Your task to perform on an android device: turn notification dots off Image 0: 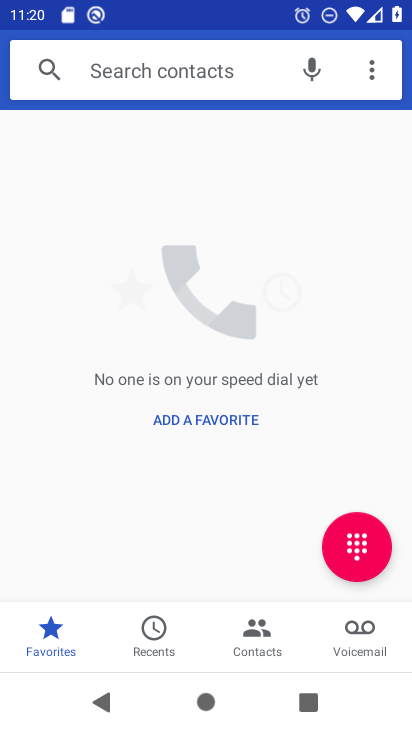
Step 0: press home button
Your task to perform on an android device: turn notification dots off Image 1: 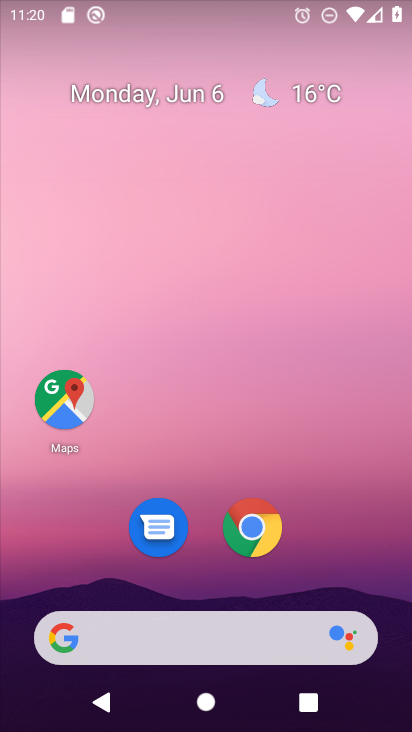
Step 1: drag from (354, 563) to (366, 276)
Your task to perform on an android device: turn notification dots off Image 2: 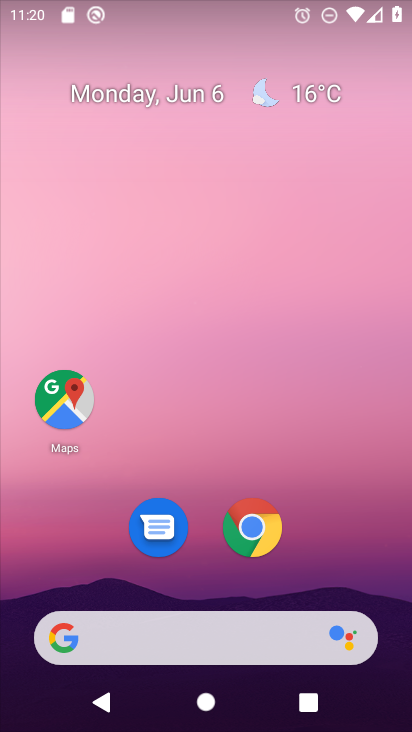
Step 2: drag from (310, 566) to (340, 200)
Your task to perform on an android device: turn notification dots off Image 3: 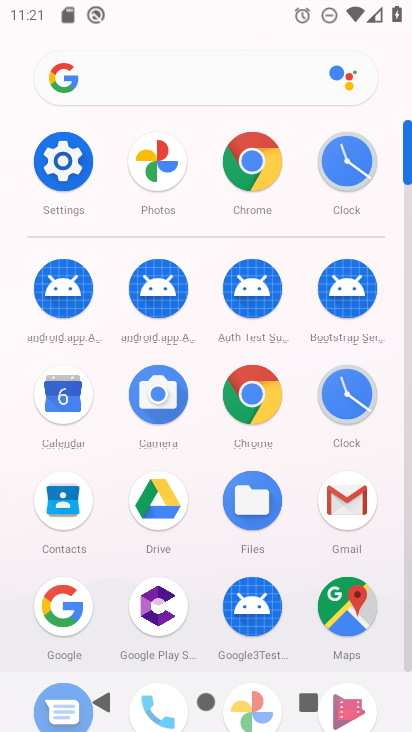
Step 3: click (74, 187)
Your task to perform on an android device: turn notification dots off Image 4: 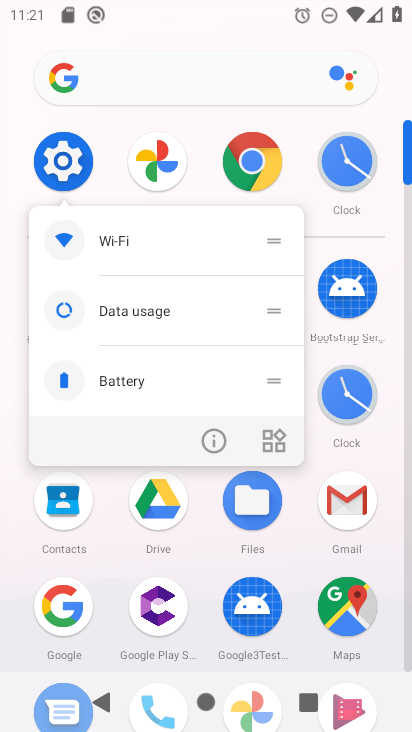
Step 4: click (73, 170)
Your task to perform on an android device: turn notification dots off Image 5: 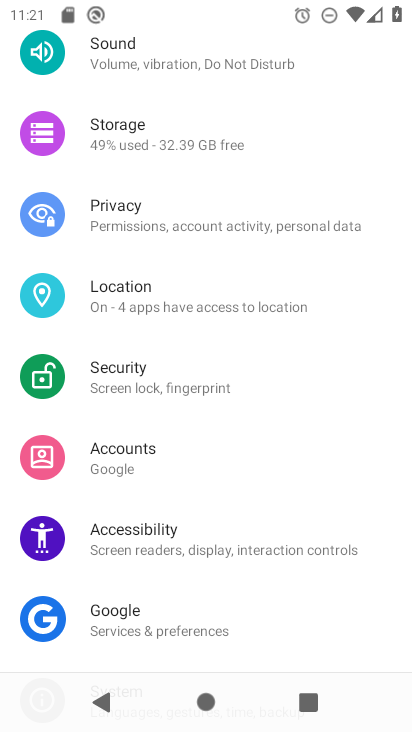
Step 5: drag from (343, 258) to (334, 436)
Your task to perform on an android device: turn notification dots off Image 6: 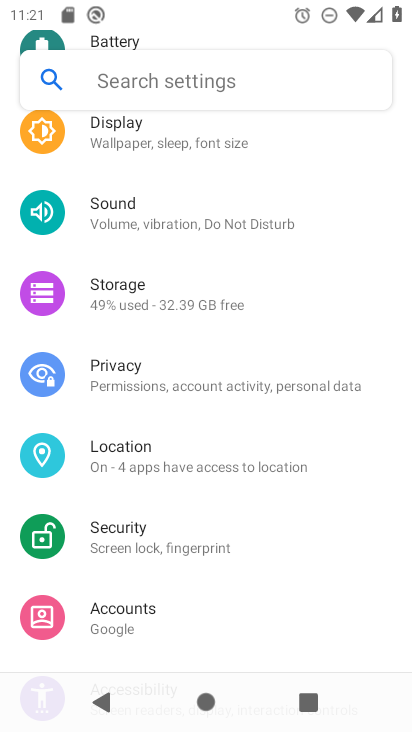
Step 6: drag from (329, 213) to (352, 391)
Your task to perform on an android device: turn notification dots off Image 7: 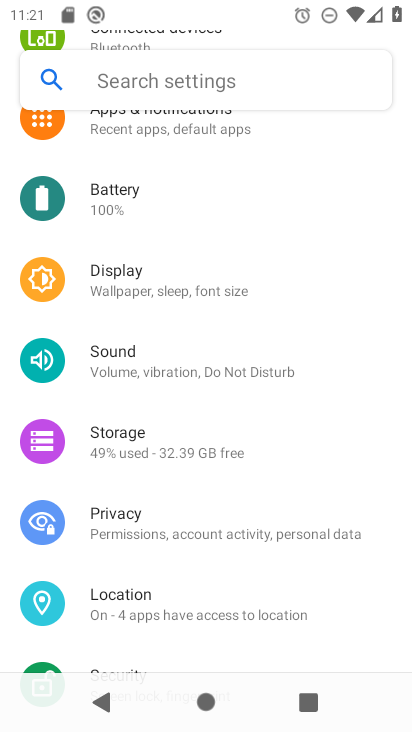
Step 7: drag from (337, 179) to (351, 375)
Your task to perform on an android device: turn notification dots off Image 8: 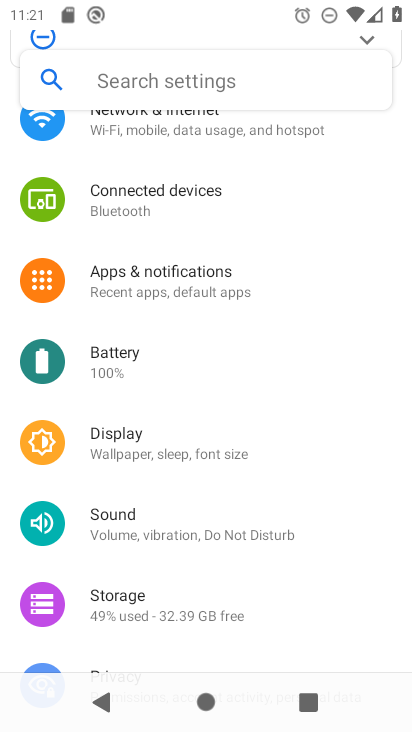
Step 8: click (264, 274)
Your task to perform on an android device: turn notification dots off Image 9: 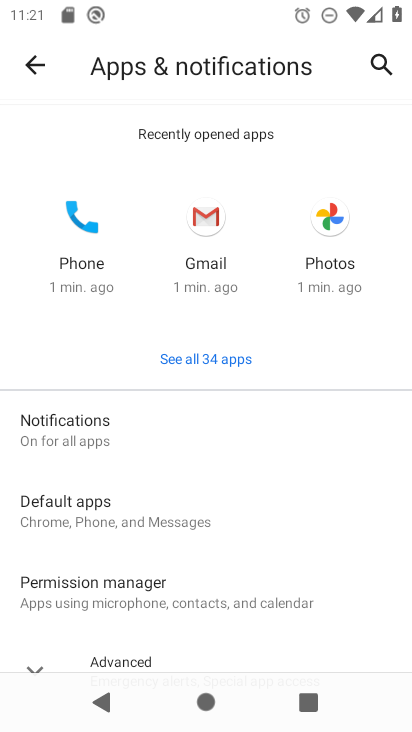
Step 9: click (165, 426)
Your task to perform on an android device: turn notification dots off Image 10: 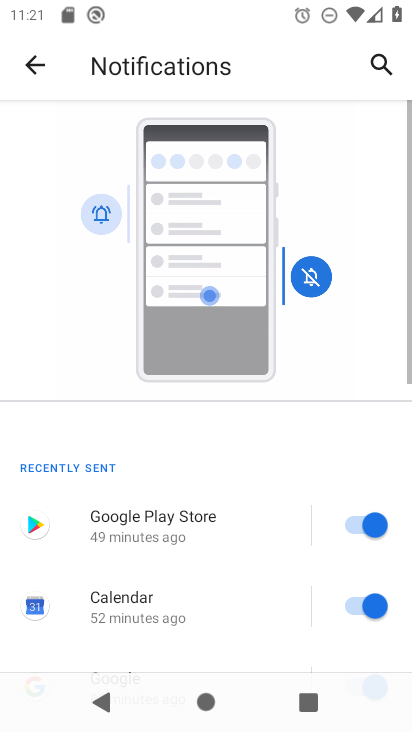
Step 10: drag from (280, 502) to (291, 359)
Your task to perform on an android device: turn notification dots off Image 11: 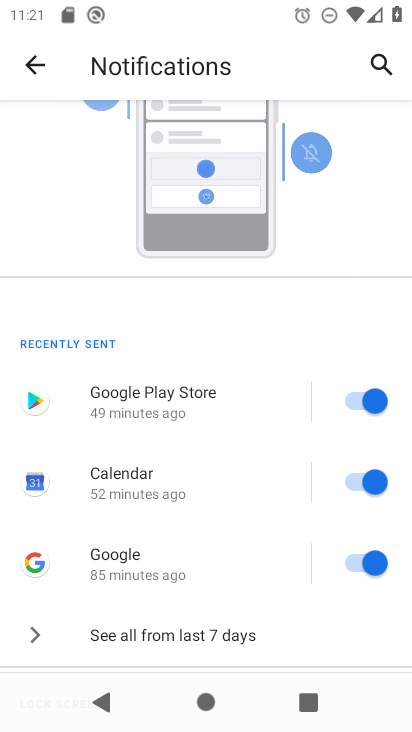
Step 11: drag from (273, 508) to (288, 380)
Your task to perform on an android device: turn notification dots off Image 12: 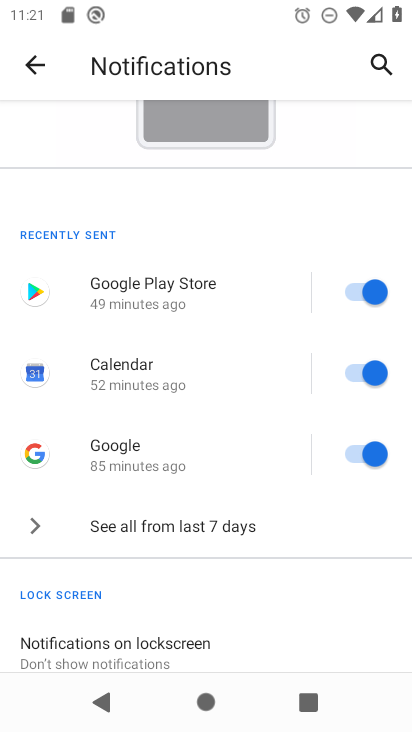
Step 12: drag from (265, 562) to (256, 392)
Your task to perform on an android device: turn notification dots off Image 13: 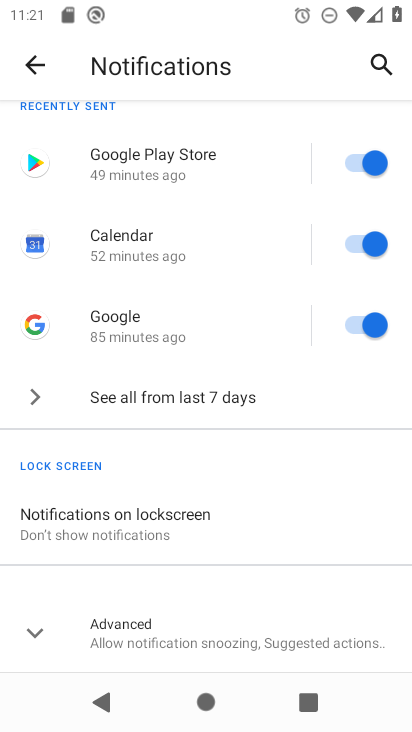
Step 13: click (230, 616)
Your task to perform on an android device: turn notification dots off Image 14: 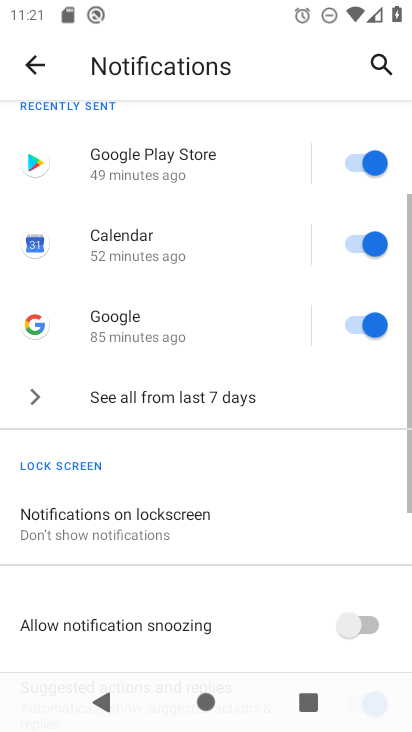
Step 14: drag from (261, 569) to (266, 394)
Your task to perform on an android device: turn notification dots off Image 15: 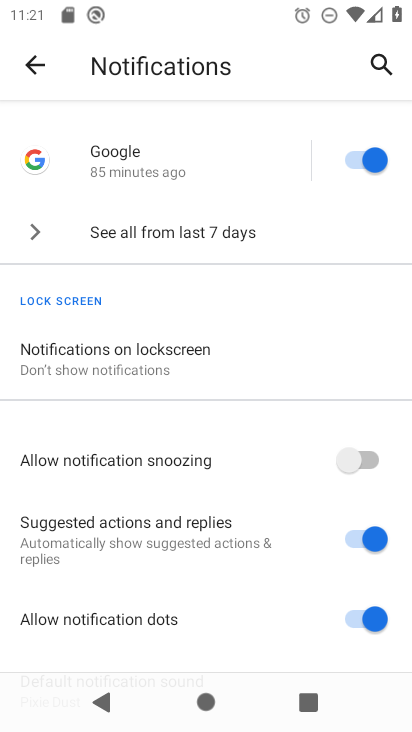
Step 15: drag from (273, 601) to (288, 441)
Your task to perform on an android device: turn notification dots off Image 16: 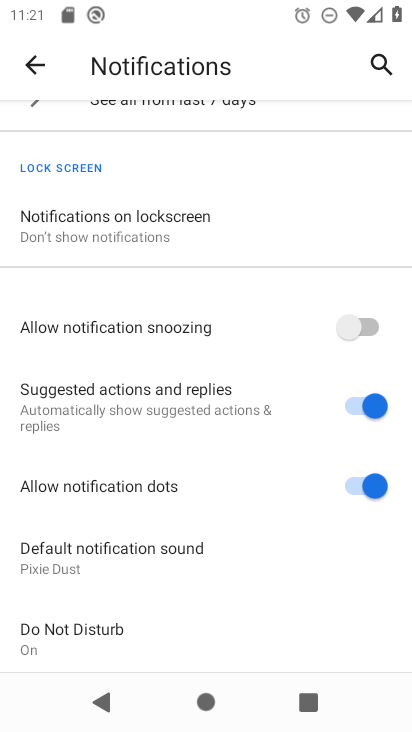
Step 16: drag from (270, 556) to (259, 443)
Your task to perform on an android device: turn notification dots off Image 17: 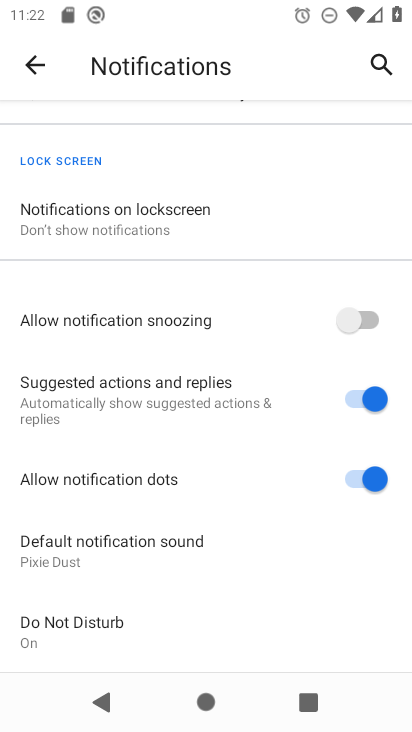
Step 17: click (354, 474)
Your task to perform on an android device: turn notification dots off Image 18: 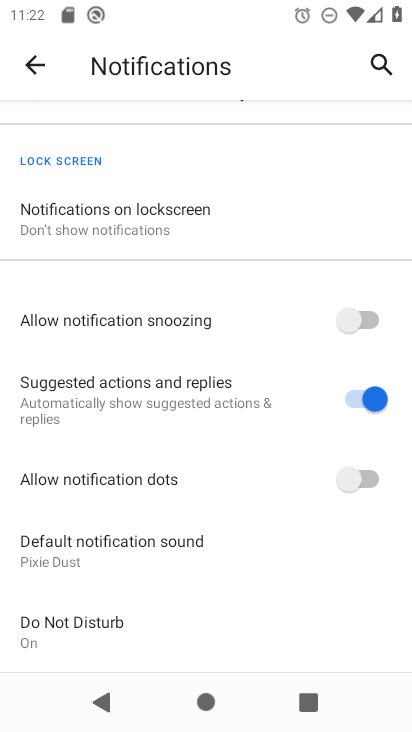
Step 18: task complete